Your task to perform on an android device: turn off smart reply in the gmail app Image 0: 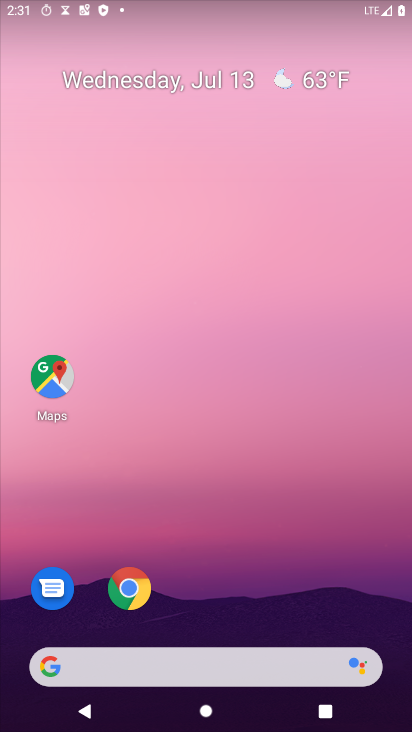
Step 0: drag from (220, 656) to (249, 255)
Your task to perform on an android device: turn off smart reply in the gmail app Image 1: 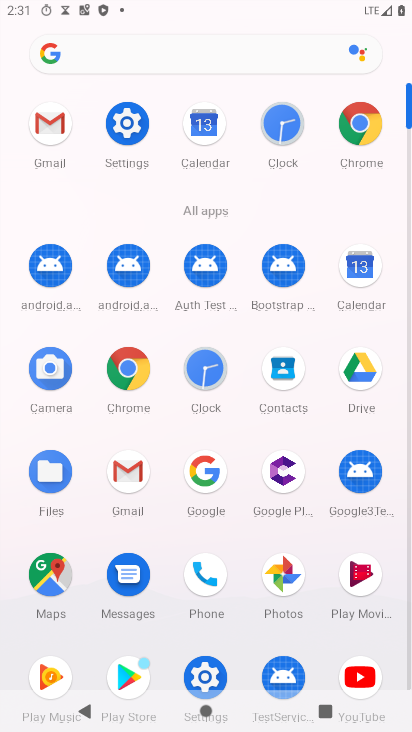
Step 1: click (132, 473)
Your task to perform on an android device: turn off smart reply in the gmail app Image 2: 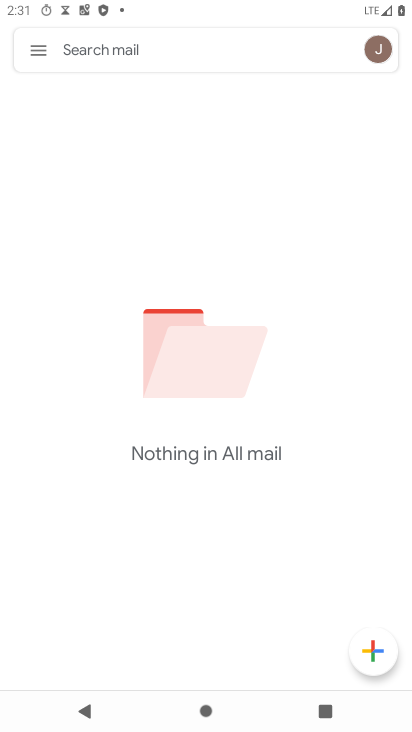
Step 2: click (39, 56)
Your task to perform on an android device: turn off smart reply in the gmail app Image 3: 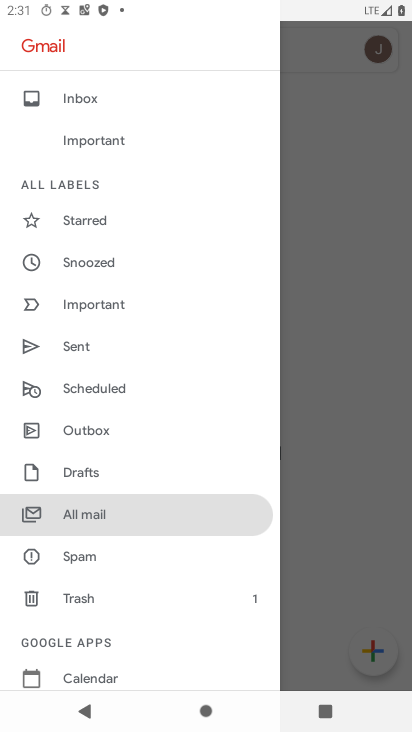
Step 3: drag from (119, 571) to (113, 105)
Your task to perform on an android device: turn off smart reply in the gmail app Image 4: 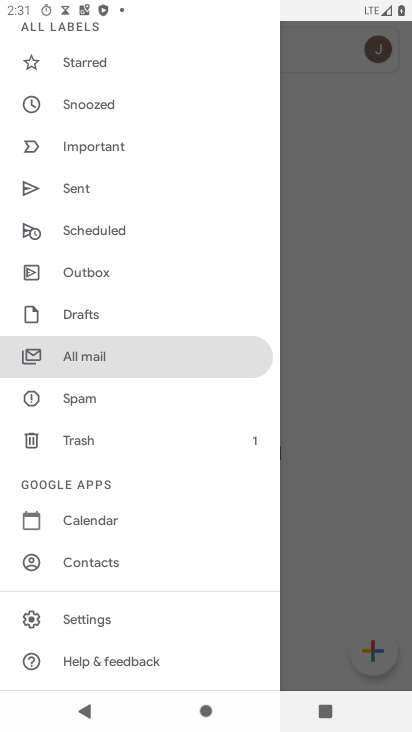
Step 4: click (67, 616)
Your task to perform on an android device: turn off smart reply in the gmail app Image 5: 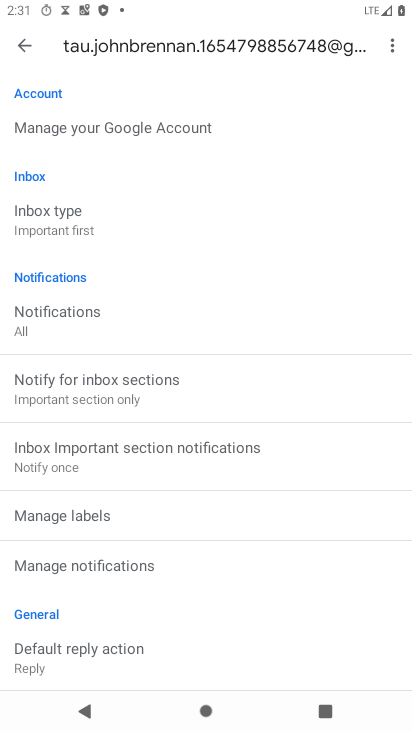
Step 5: drag from (116, 533) to (110, 153)
Your task to perform on an android device: turn off smart reply in the gmail app Image 6: 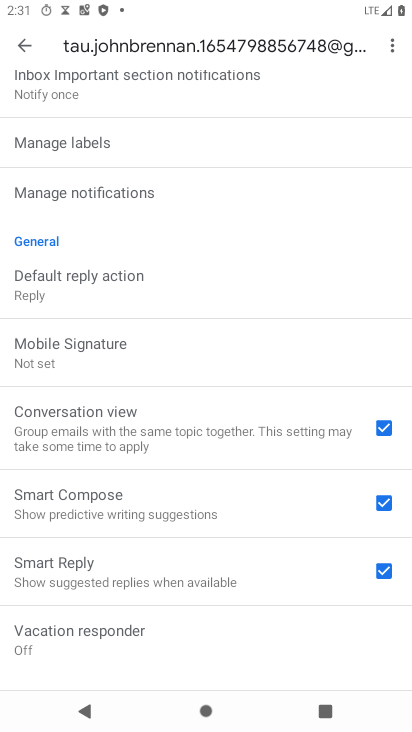
Step 6: click (387, 566)
Your task to perform on an android device: turn off smart reply in the gmail app Image 7: 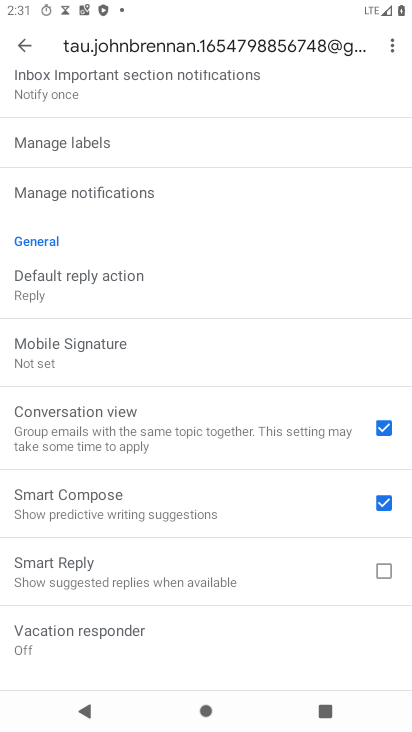
Step 7: task complete